Your task to perform on an android device: uninstall "Booking.com: Hotels and more" Image 0: 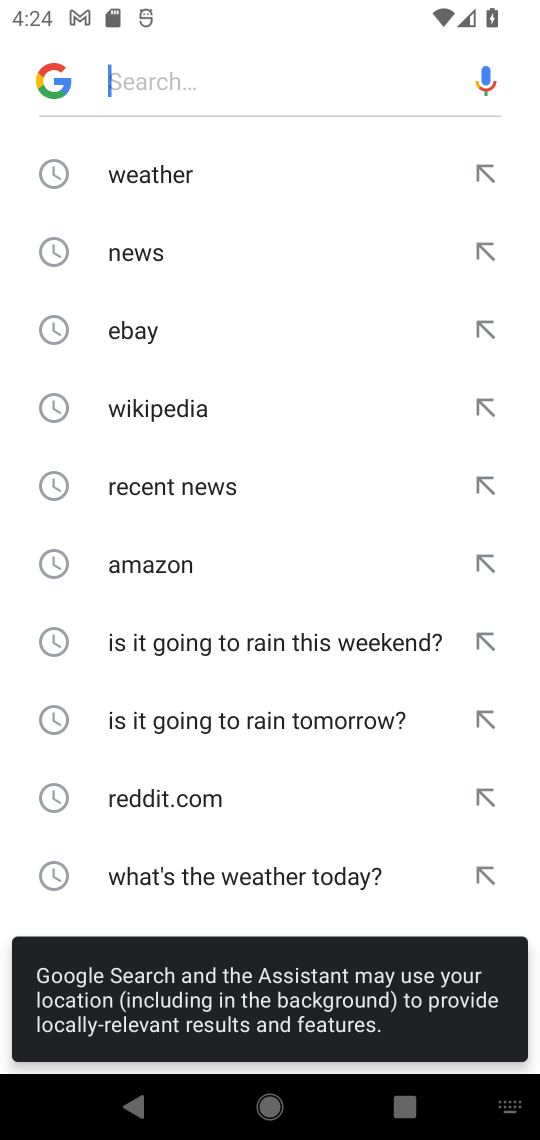
Step 0: press home button
Your task to perform on an android device: uninstall "Booking.com: Hotels and more" Image 1: 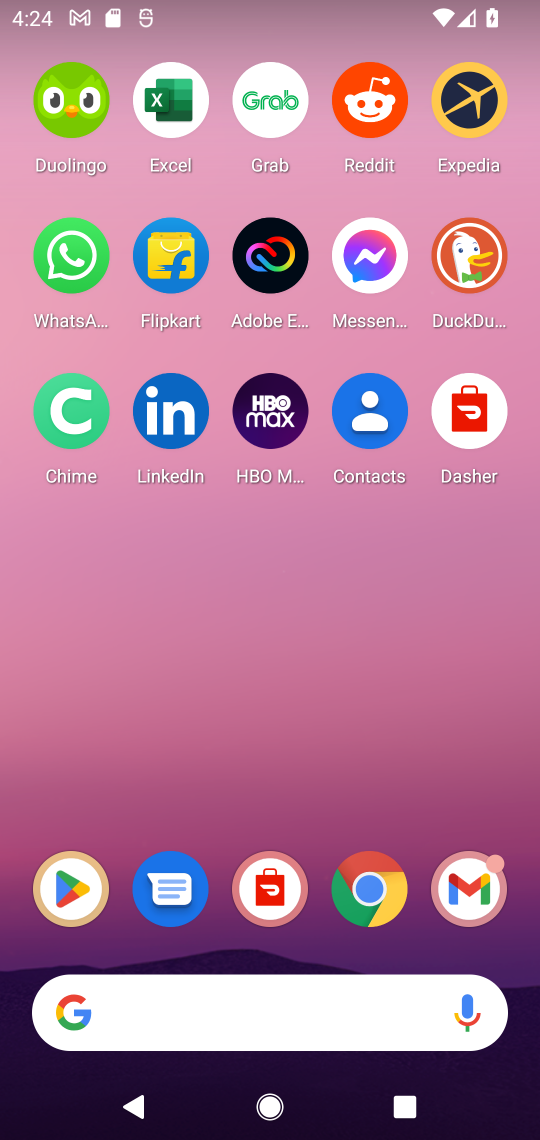
Step 1: drag from (408, 749) to (421, 70)
Your task to perform on an android device: uninstall "Booking.com: Hotels and more" Image 2: 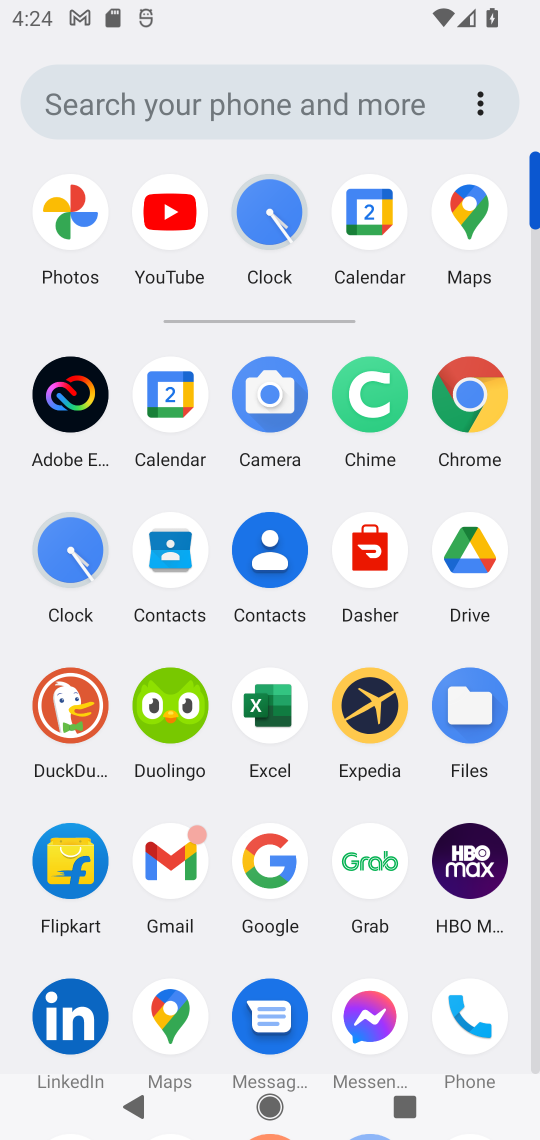
Step 2: drag from (520, 968) to (527, 568)
Your task to perform on an android device: uninstall "Booking.com: Hotels and more" Image 3: 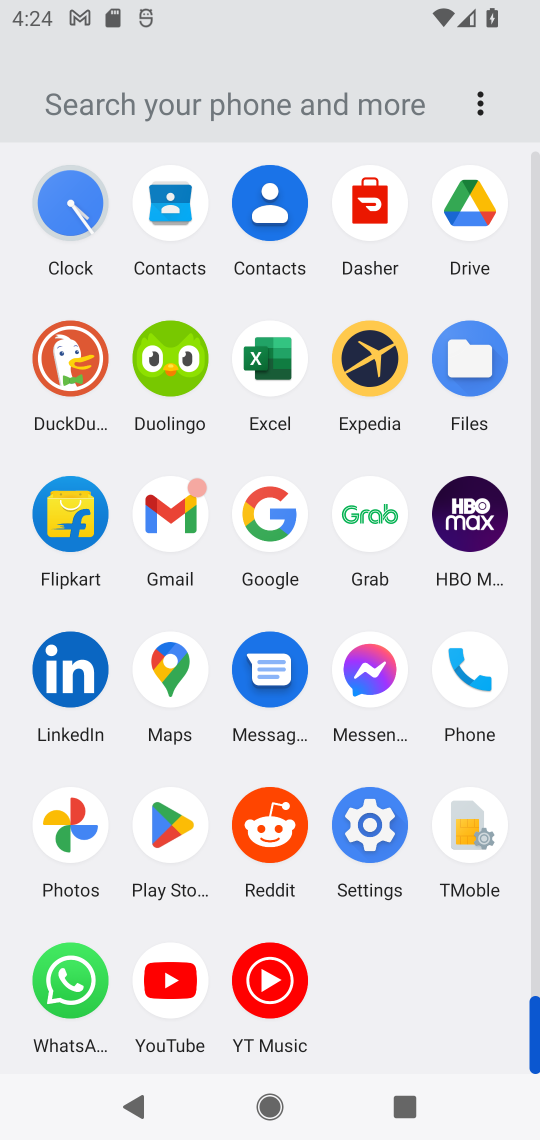
Step 3: click (178, 828)
Your task to perform on an android device: uninstall "Booking.com: Hotels and more" Image 4: 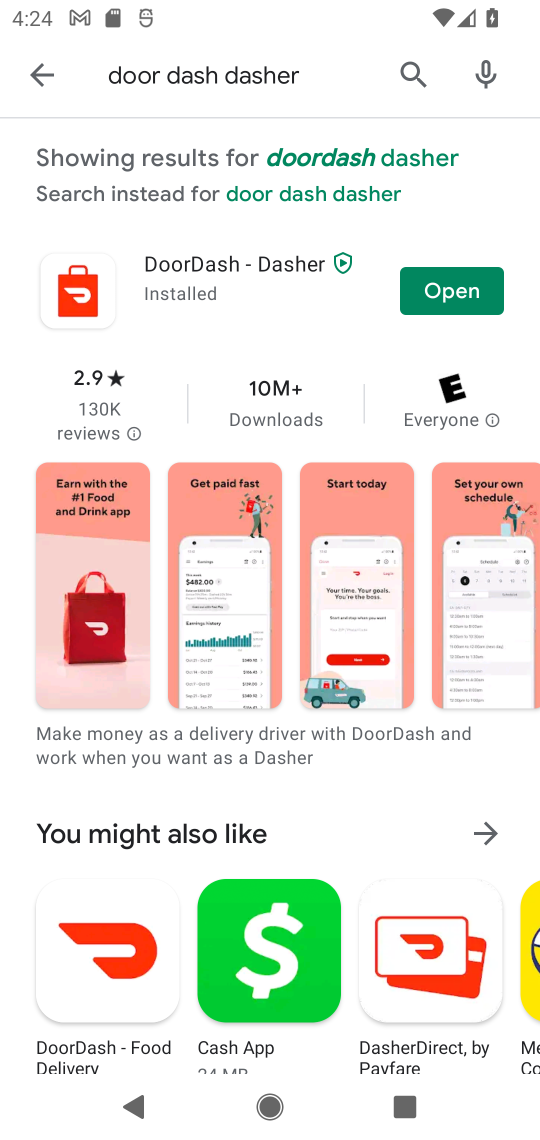
Step 4: click (404, 71)
Your task to perform on an android device: uninstall "Booking.com: Hotels and more" Image 5: 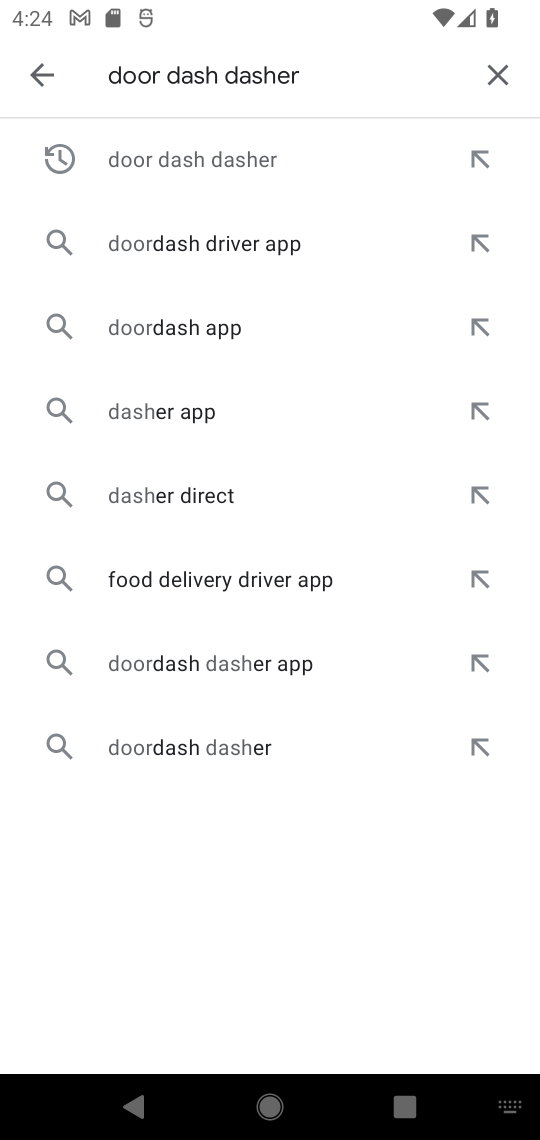
Step 5: click (500, 72)
Your task to perform on an android device: uninstall "Booking.com: Hotels and more" Image 6: 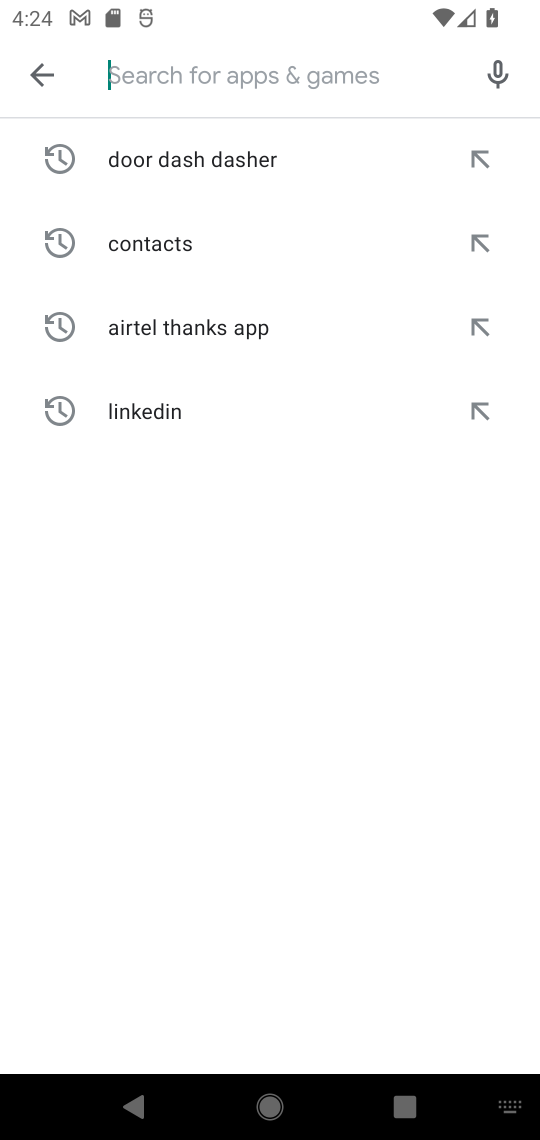
Step 6: type "Booking.com: Hotels and more"
Your task to perform on an android device: uninstall "Booking.com: Hotels and more" Image 7: 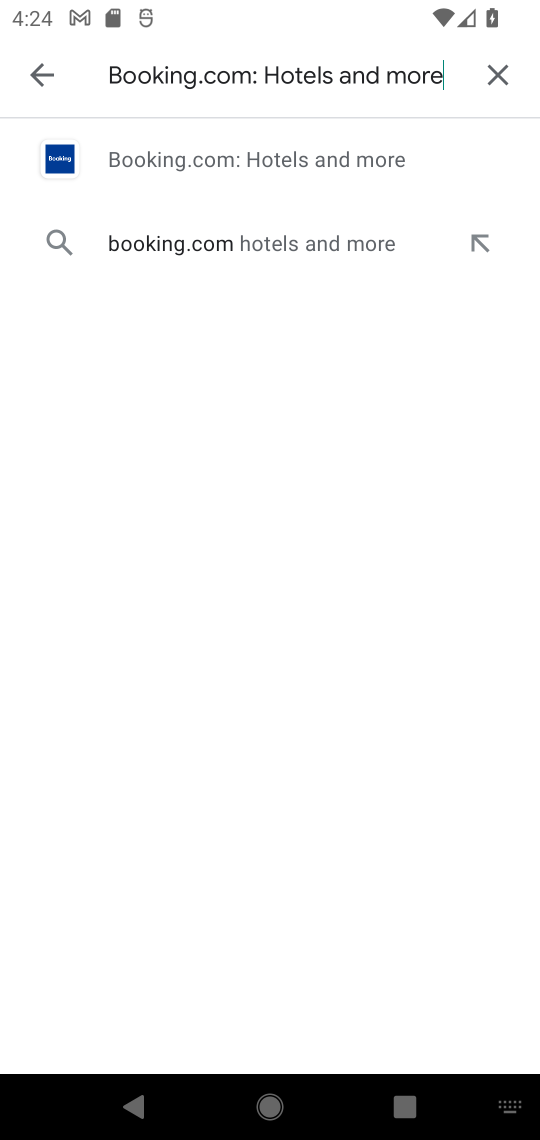
Step 7: click (248, 163)
Your task to perform on an android device: uninstall "Booking.com: Hotels and more" Image 8: 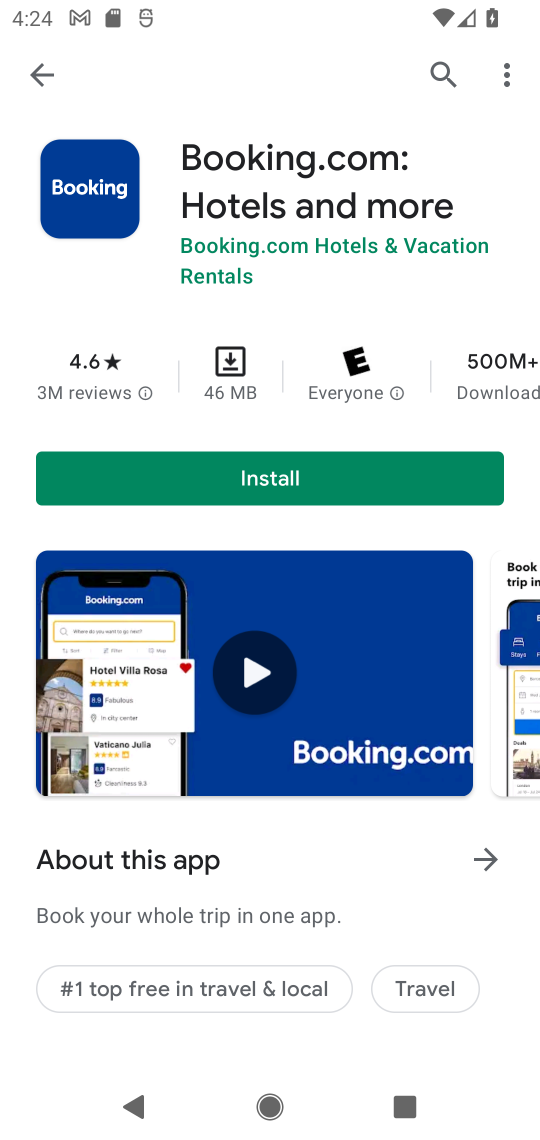
Step 8: task complete